Your task to perform on an android device: Open ESPN.com Image 0: 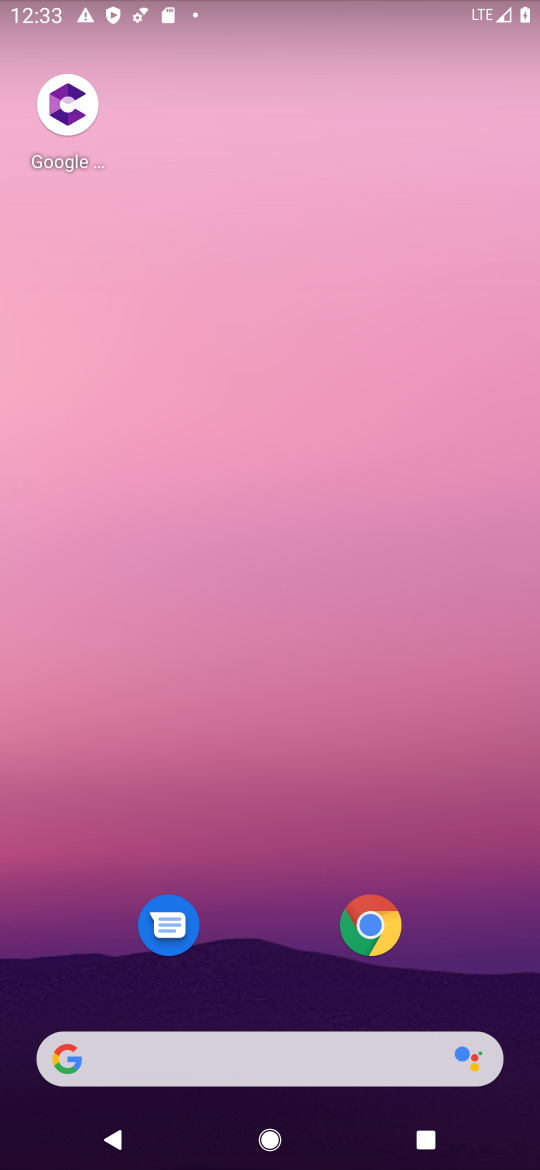
Step 0: click (356, 914)
Your task to perform on an android device: Open ESPN.com Image 1: 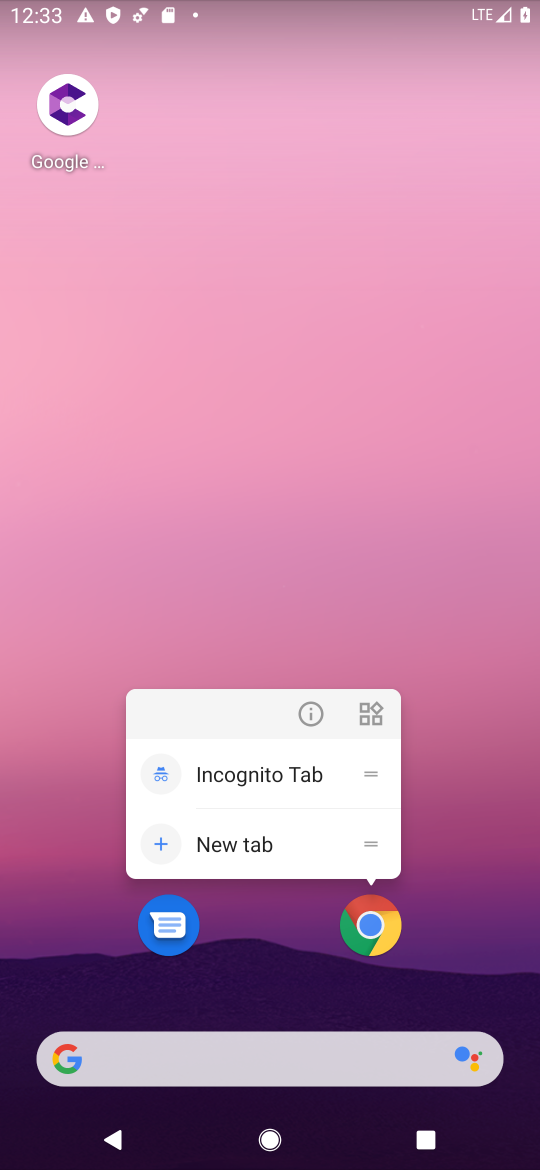
Step 1: click (361, 928)
Your task to perform on an android device: Open ESPN.com Image 2: 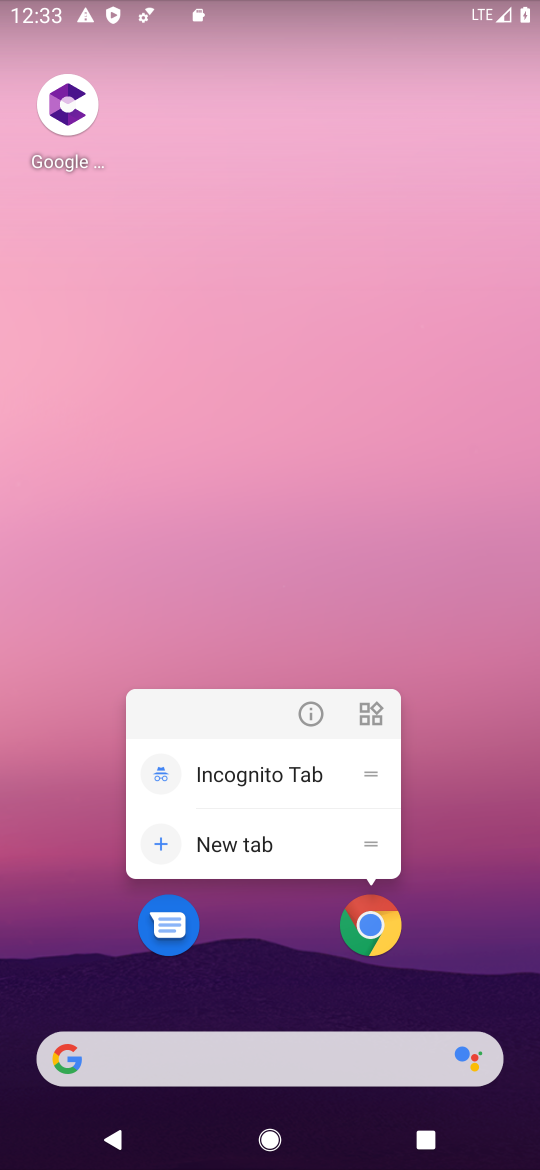
Step 2: click (360, 905)
Your task to perform on an android device: Open ESPN.com Image 3: 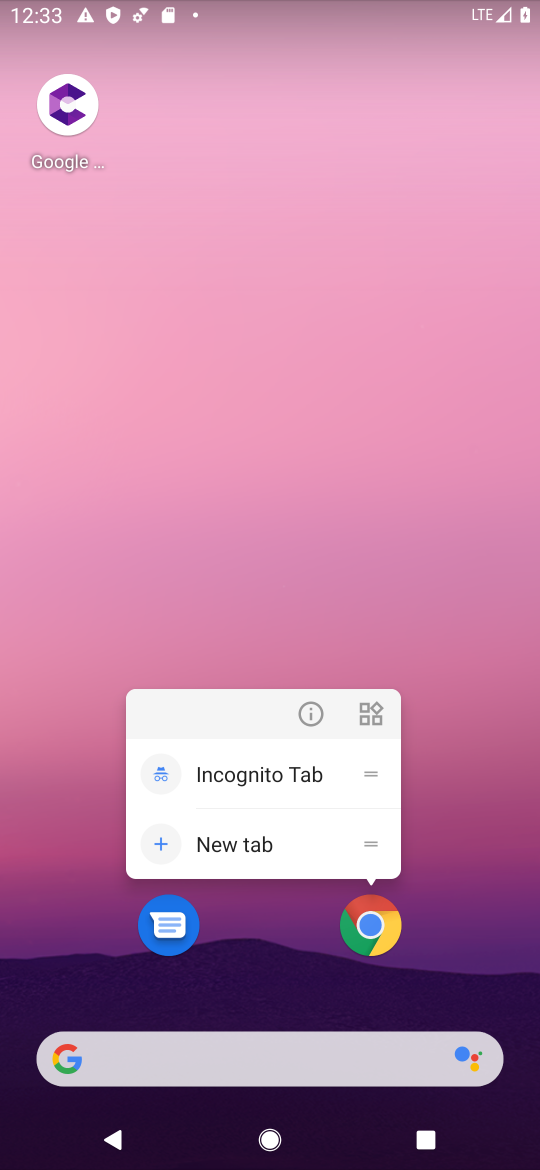
Step 3: click (395, 931)
Your task to perform on an android device: Open ESPN.com Image 4: 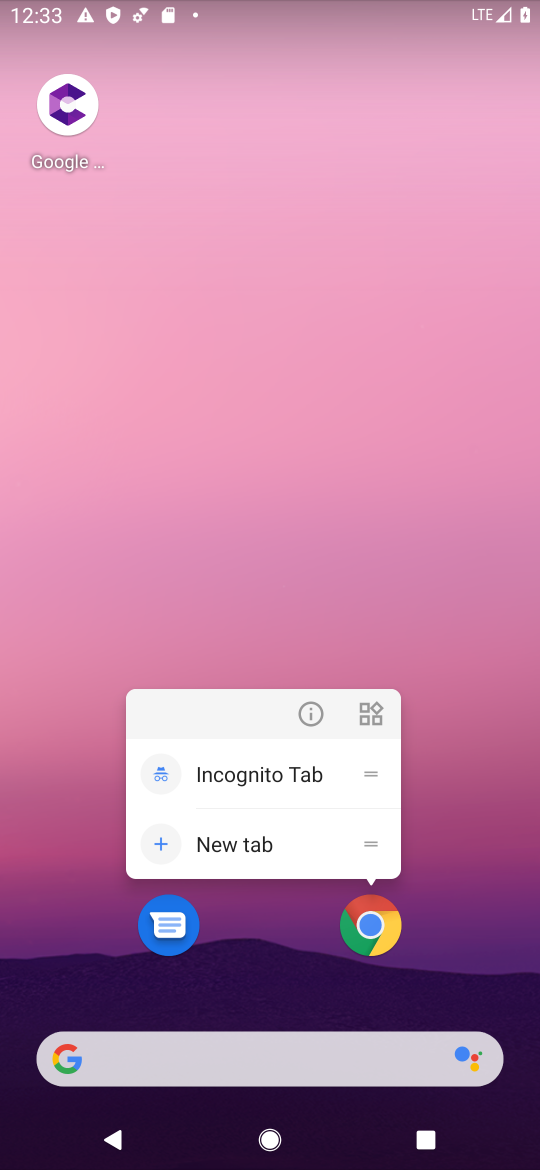
Step 4: click (373, 931)
Your task to perform on an android device: Open ESPN.com Image 5: 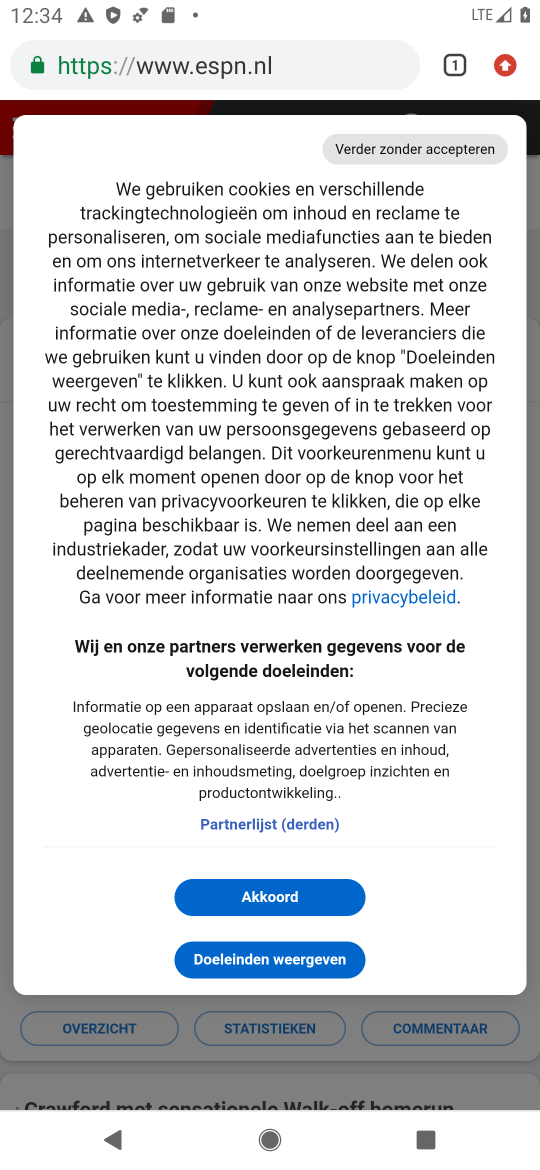
Step 5: click (355, 899)
Your task to perform on an android device: Open ESPN.com Image 6: 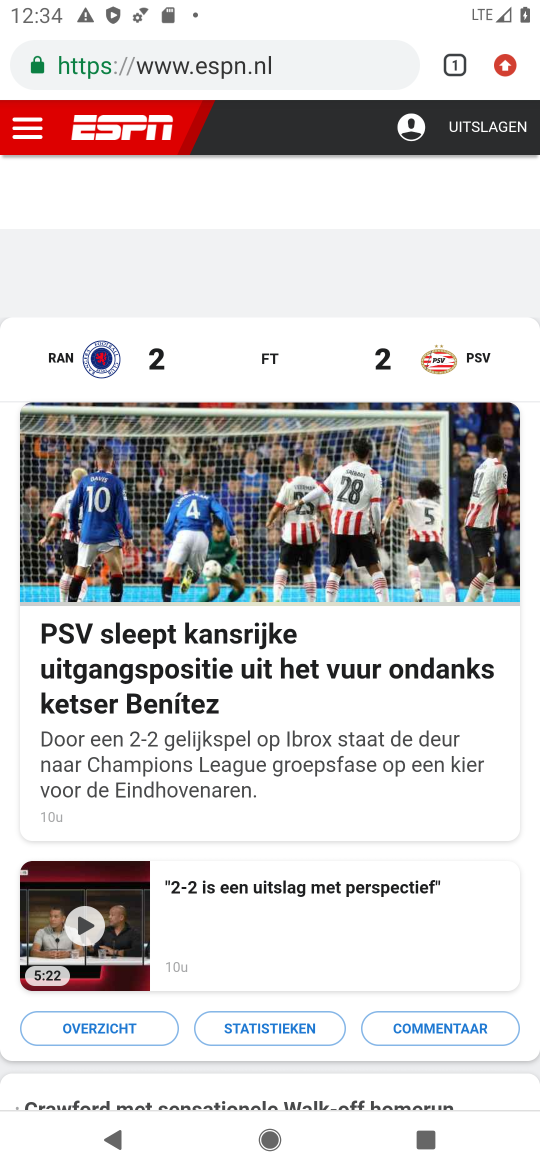
Step 6: task complete